Your task to perform on an android device: Open eBay Image 0: 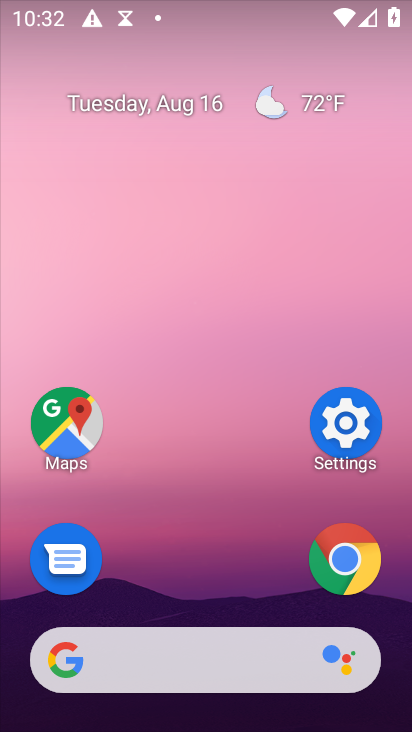
Step 0: click (354, 559)
Your task to perform on an android device: Open eBay Image 1: 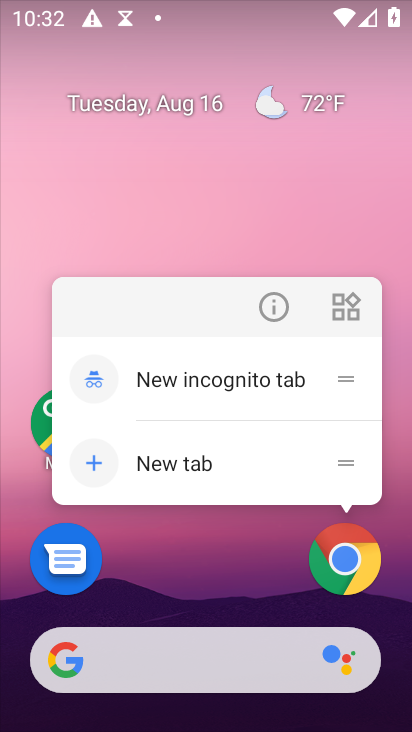
Step 1: click (347, 560)
Your task to perform on an android device: Open eBay Image 2: 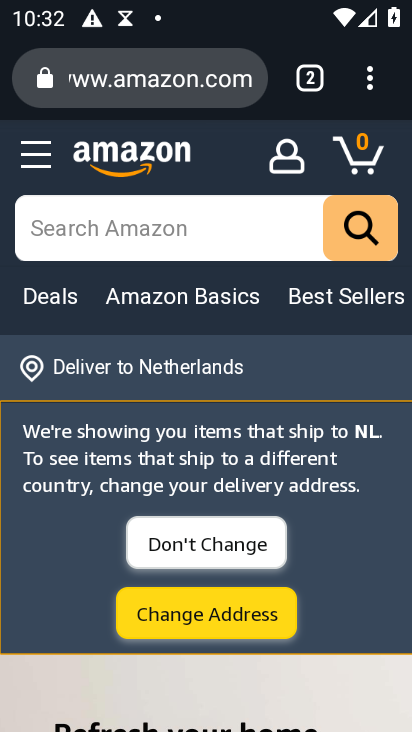
Step 2: drag from (366, 83) to (159, 161)
Your task to perform on an android device: Open eBay Image 3: 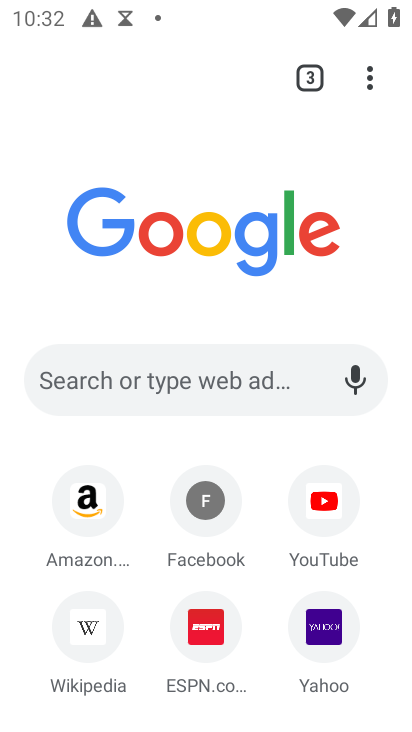
Step 3: drag from (152, 598) to (230, 269)
Your task to perform on an android device: Open eBay Image 4: 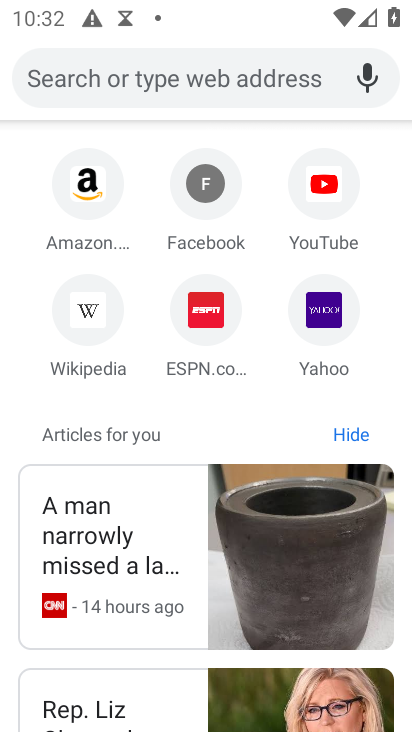
Step 4: click (101, 73)
Your task to perform on an android device: Open eBay Image 5: 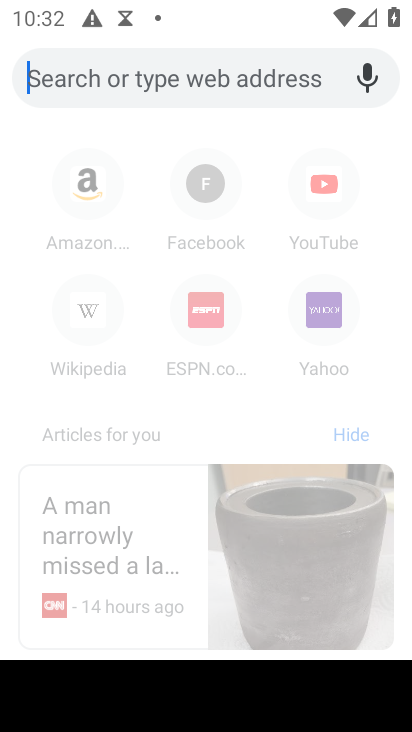
Step 5: type " eBay"
Your task to perform on an android device: Open eBay Image 6: 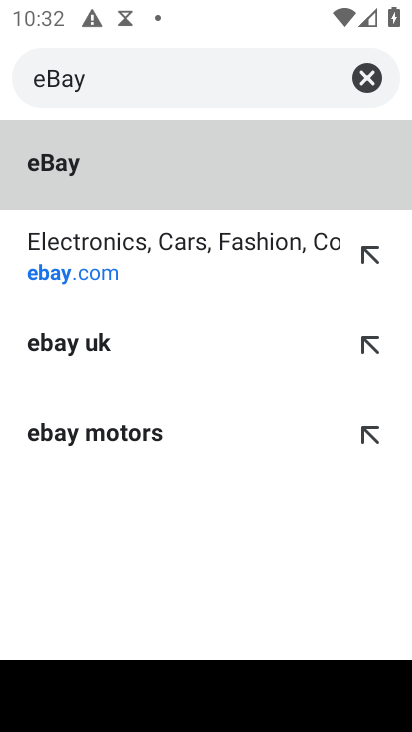
Step 6: click (115, 262)
Your task to perform on an android device: Open eBay Image 7: 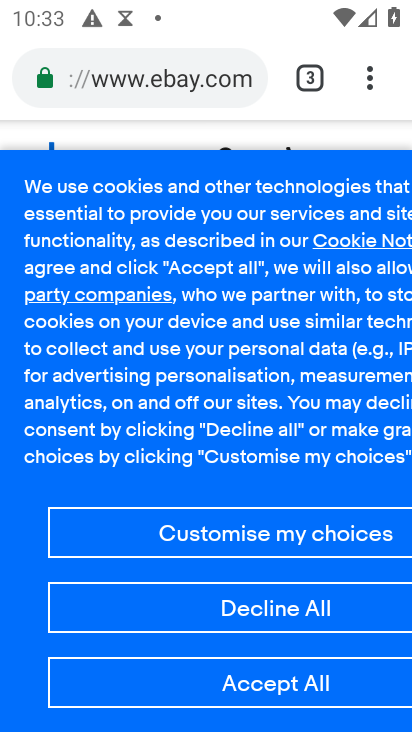
Step 7: click (253, 688)
Your task to perform on an android device: Open eBay Image 8: 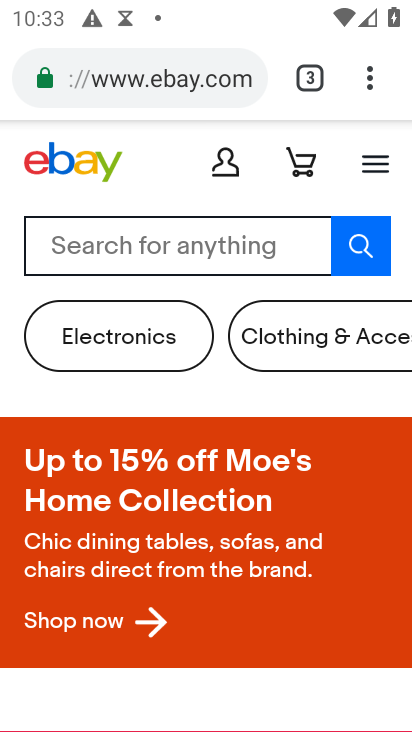
Step 8: task complete